Your task to perform on an android device: Open Yahoo.com Image 0: 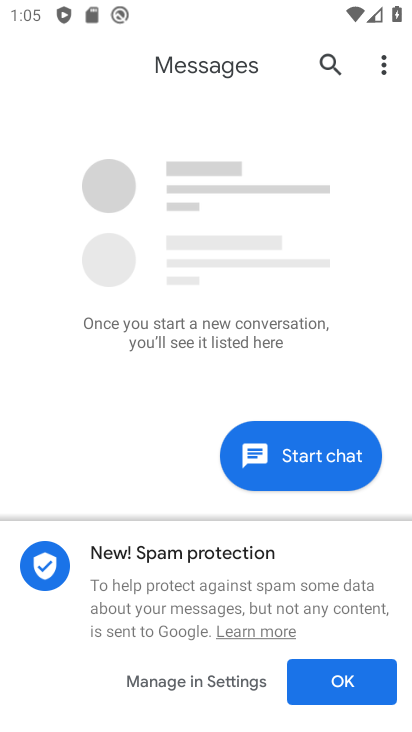
Step 0: press home button
Your task to perform on an android device: Open Yahoo.com Image 1: 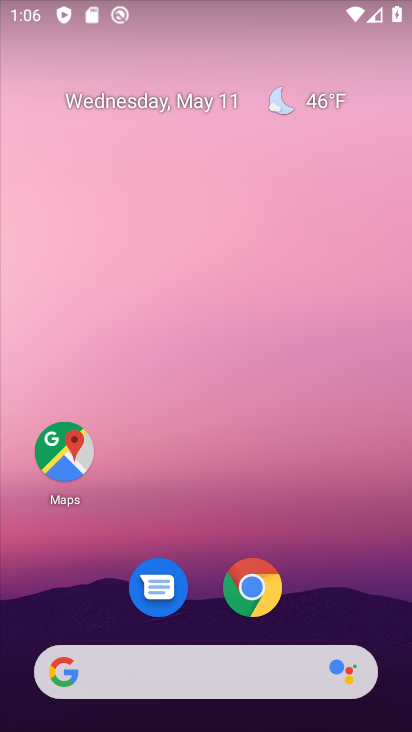
Step 1: drag from (213, 731) to (398, 730)
Your task to perform on an android device: Open Yahoo.com Image 2: 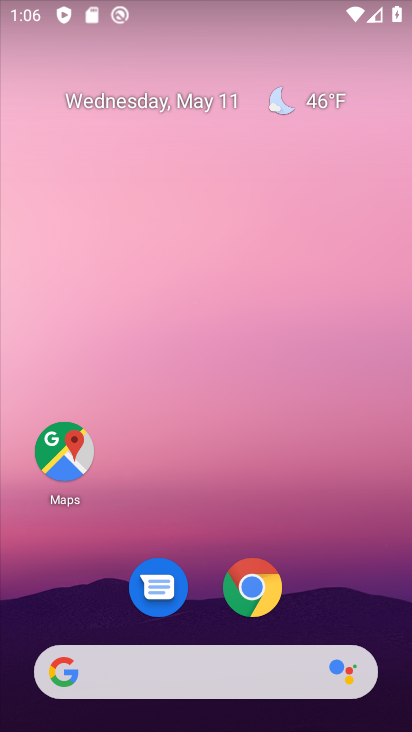
Step 2: click (256, 581)
Your task to perform on an android device: Open Yahoo.com Image 3: 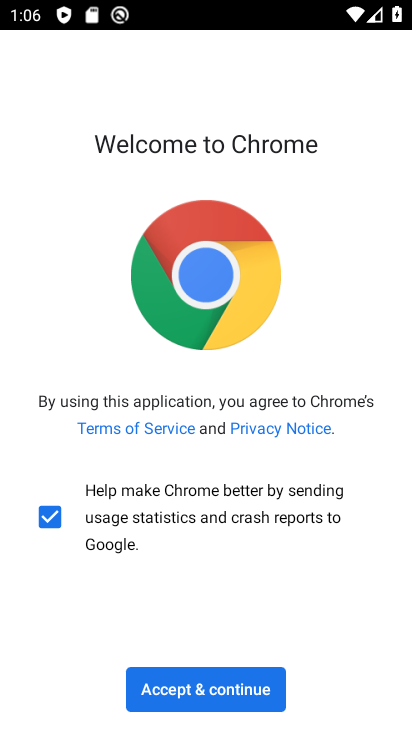
Step 3: click (168, 683)
Your task to perform on an android device: Open Yahoo.com Image 4: 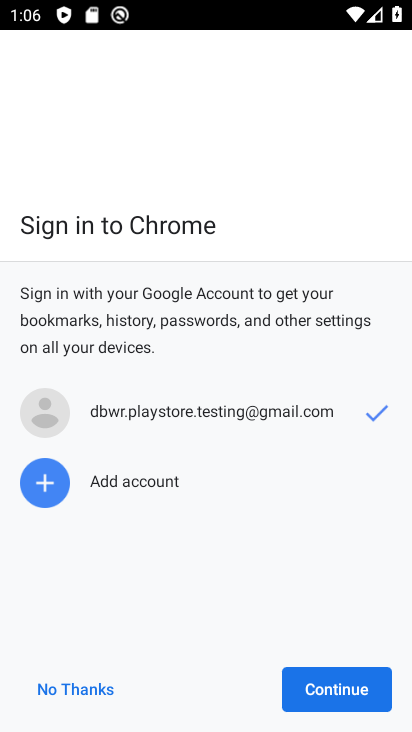
Step 4: click (372, 691)
Your task to perform on an android device: Open Yahoo.com Image 5: 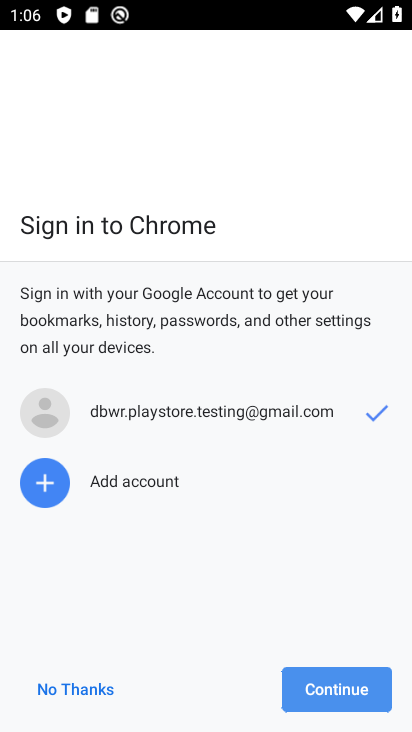
Step 5: click (372, 691)
Your task to perform on an android device: Open Yahoo.com Image 6: 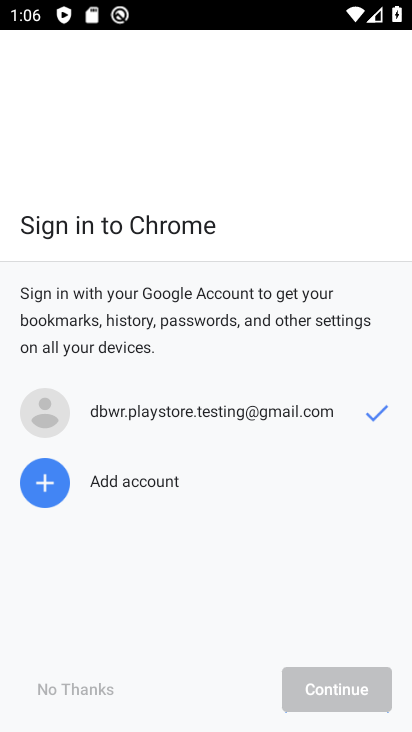
Step 6: click (372, 691)
Your task to perform on an android device: Open Yahoo.com Image 7: 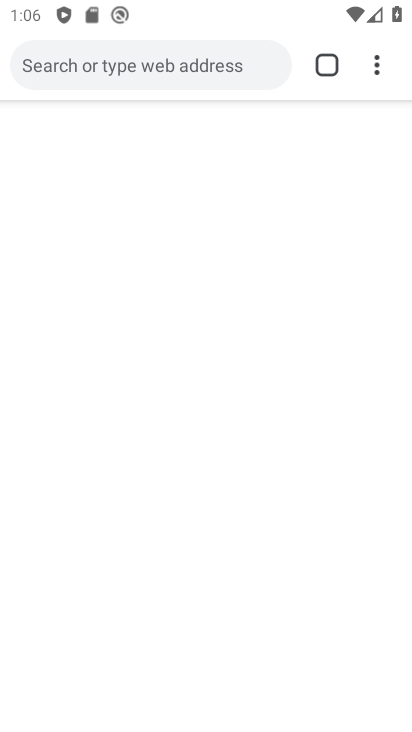
Step 7: click (319, 688)
Your task to perform on an android device: Open Yahoo.com Image 8: 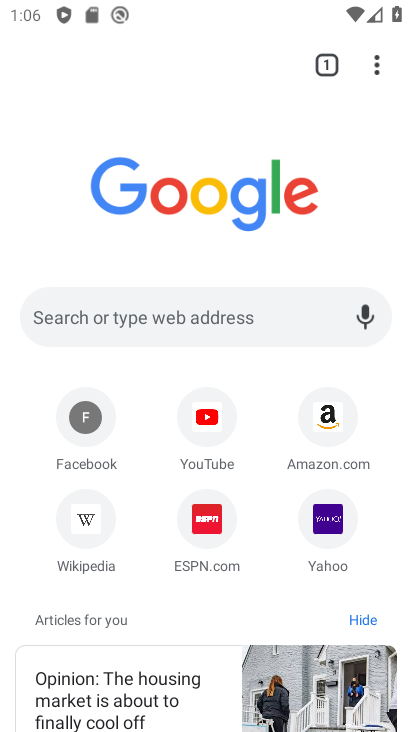
Step 8: click (314, 528)
Your task to perform on an android device: Open Yahoo.com Image 9: 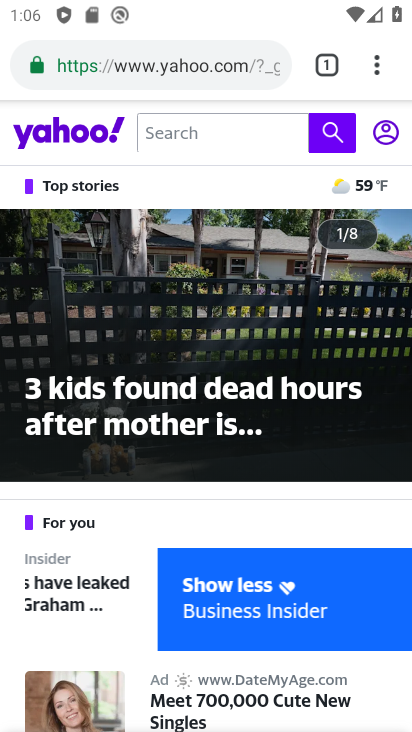
Step 9: task complete